Your task to perform on an android device: Open accessibility settings Image 0: 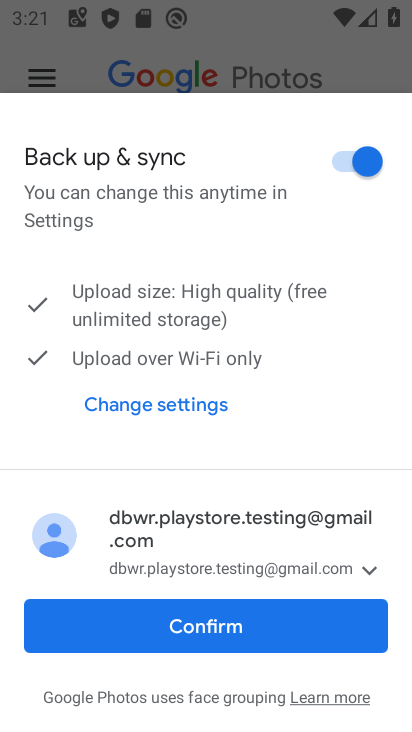
Step 0: press home button
Your task to perform on an android device: Open accessibility settings Image 1: 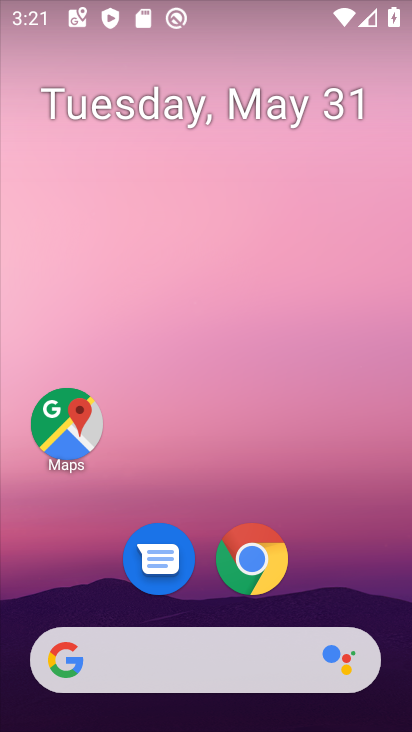
Step 1: drag from (259, 719) to (255, 4)
Your task to perform on an android device: Open accessibility settings Image 2: 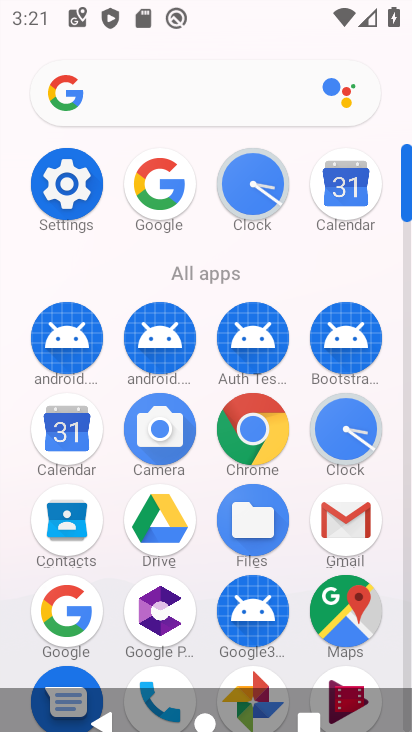
Step 2: click (63, 195)
Your task to perform on an android device: Open accessibility settings Image 3: 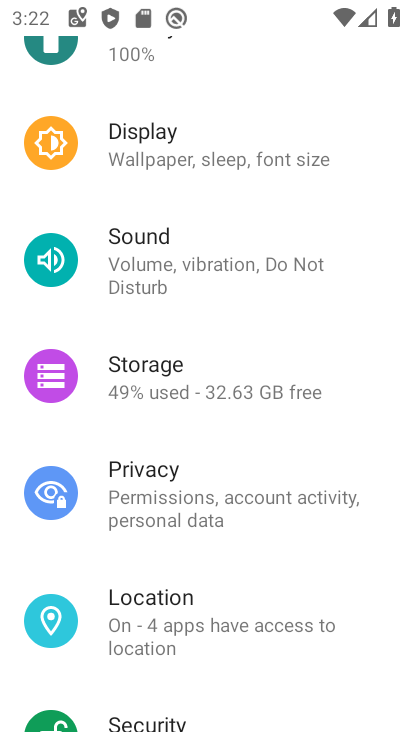
Step 3: drag from (181, 655) to (200, 217)
Your task to perform on an android device: Open accessibility settings Image 4: 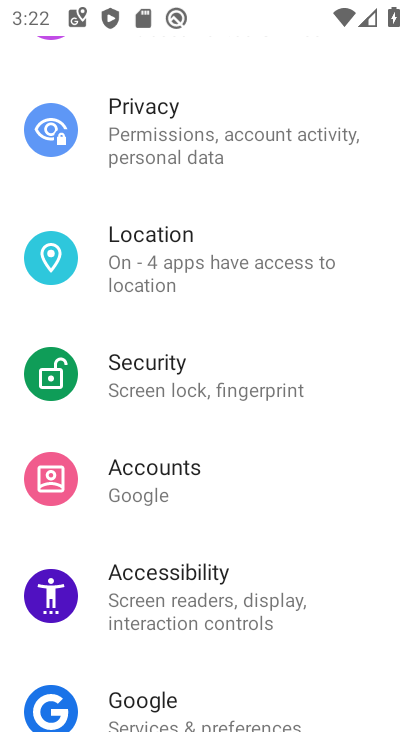
Step 4: click (148, 566)
Your task to perform on an android device: Open accessibility settings Image 5: 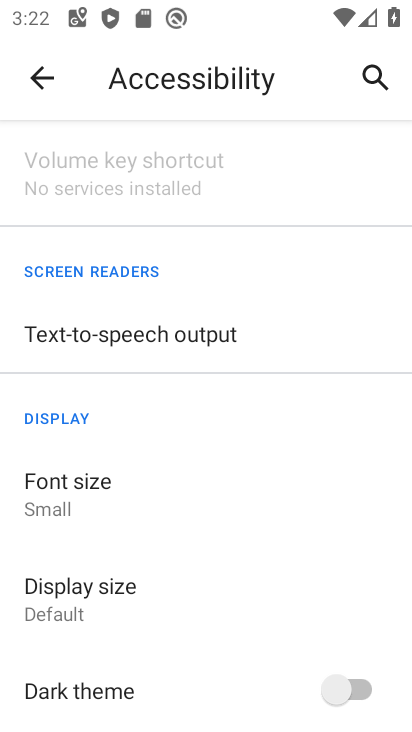
Step 5: task complete